Your task to perform on an android device: Open the calendar app, open the side menu, and click the "Day" option Image 0: 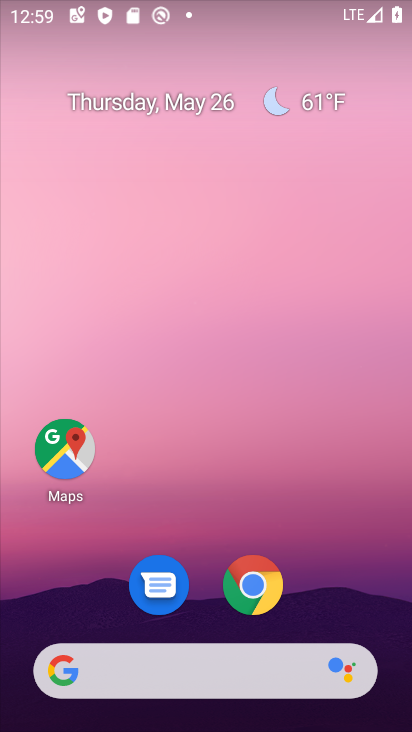
Step 0: drag from (207, 507) to (288, 5)
Your task to perform on an android device: Open the calendar app, open the side menu, and click the "Day" option Image 1: 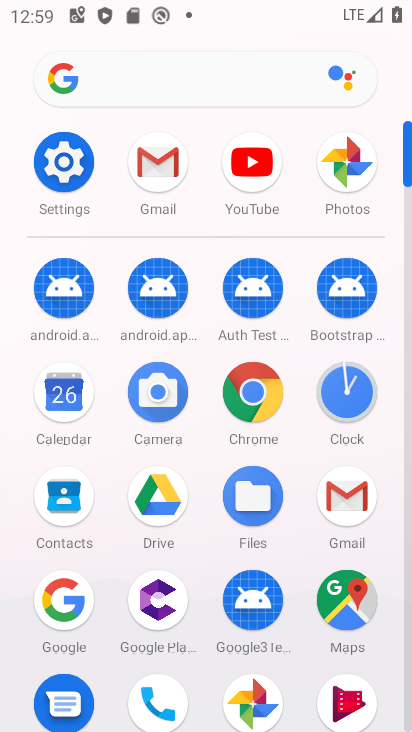
Step 1: click (63, 390)
Your task to perform on an android device: Open the calendar app, open the side menu, and click the "Day" option Image 2: 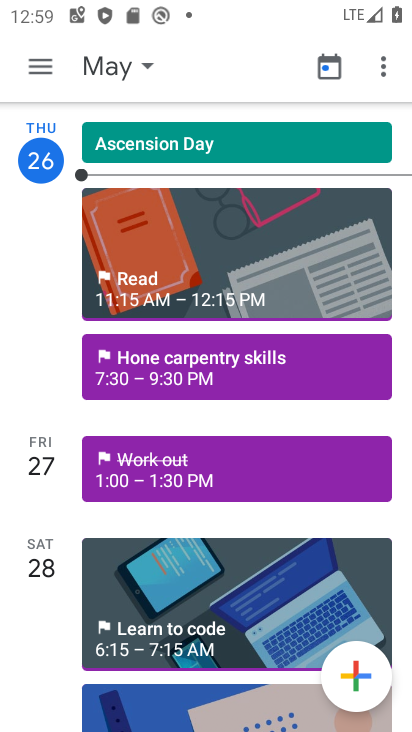
Step 2: click (41, 64)
Your task to perform on an android device: Open the calendar app, open the side menu, and click the "Day" option Image 3: 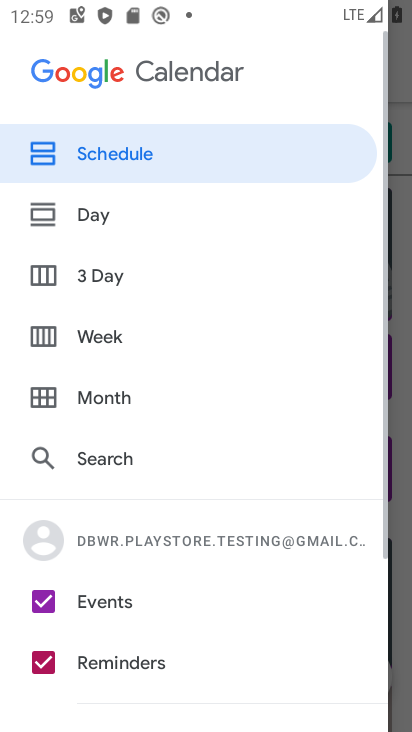
Step 3: click (37, 203)
Your task to perform on an android device: Open the calendar app, open the side menu, and click the "Day" option Image 4: 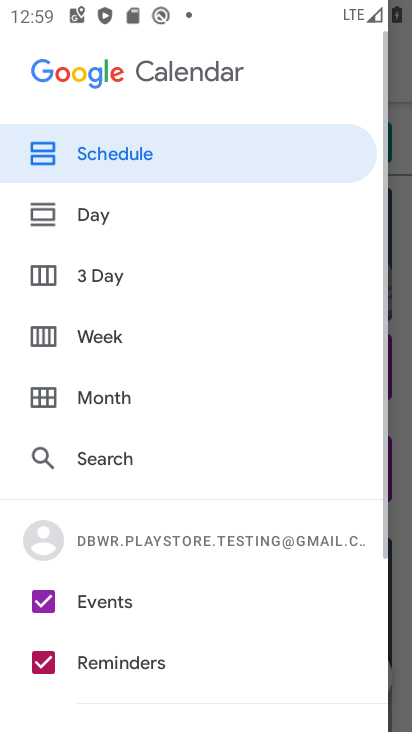
Step 4: click (49, 213)
Your task to perform on an android device: Open the calendar app, open the side menu, and click the "Day" option Image 5: 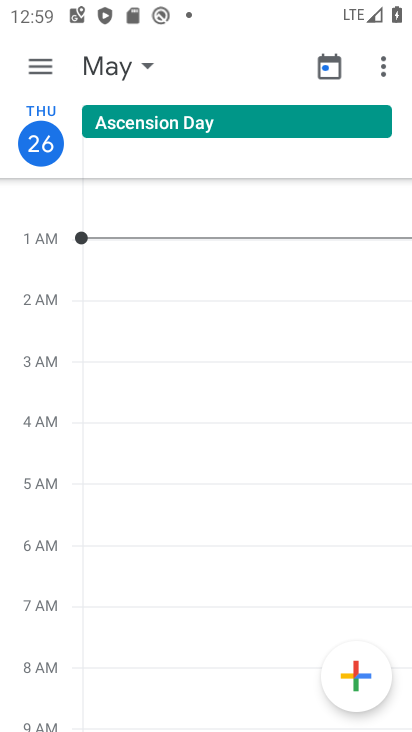
Step 5: task complete